Your task to perform on an android device: turn on showing notifications on the lock screen Image 0: 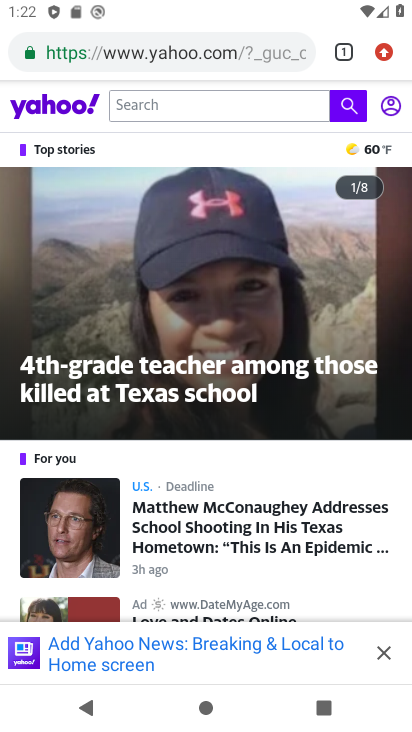
Step 0: press home button
Your task to perform on an android device: turn on showing notifications on the lock screen Image 1: 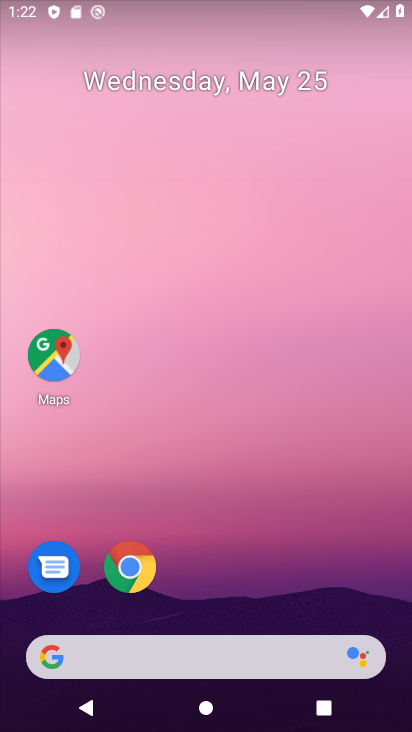
Step 1: drag from (242, 507) to (219, 72)
Your task to perform on an android device: turn on showing notifications on the lock screen Image 2: 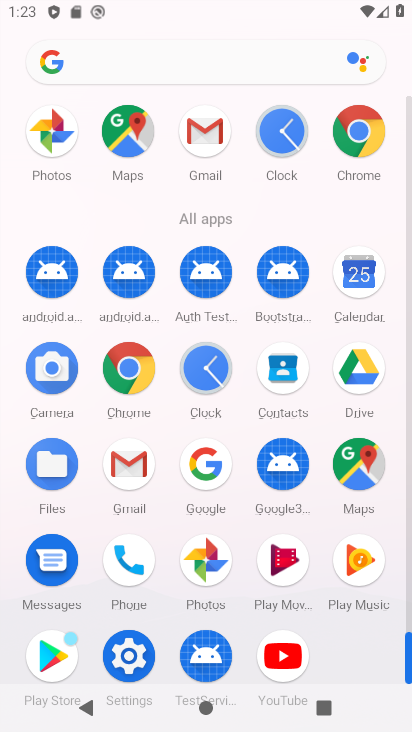
Step 2: drag from (17, 579) to (16, 307)
Your task to perform on an android device: turn on showing notifications on the lock screen Image 3: 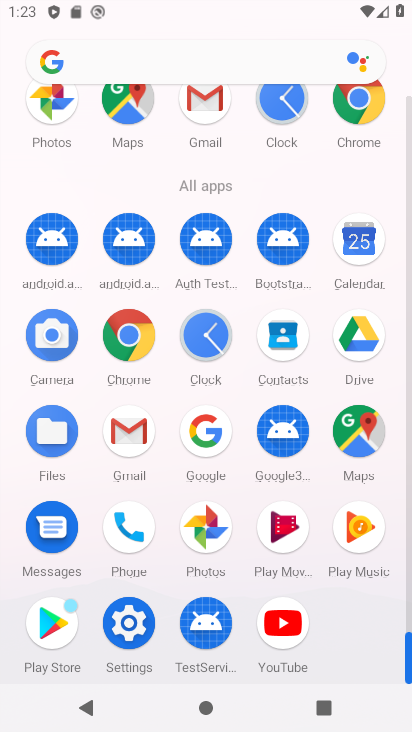
Step 3: click (128, 620)
Your task to perform on an android device: turn on showing notifications on the lock screen Image 4: 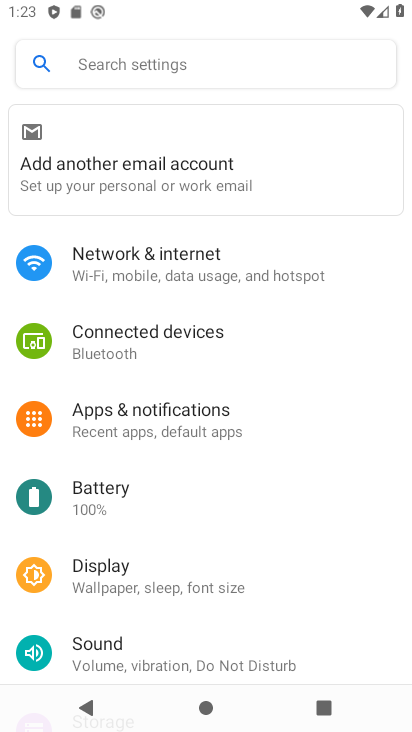
Step 4: click (163, 415)
Your task to perform on an android device: turn on showing notifications on the lock screen Image 5: 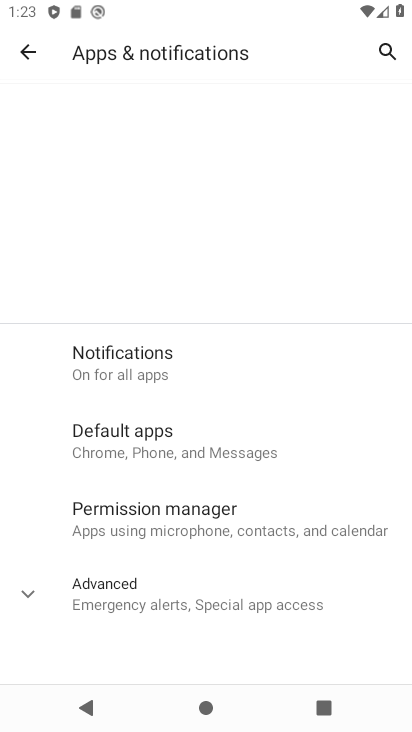
Step 5: click (49, 585)
Your task to perform on an android device: turn on showing notifications on the lock screen Image 6: 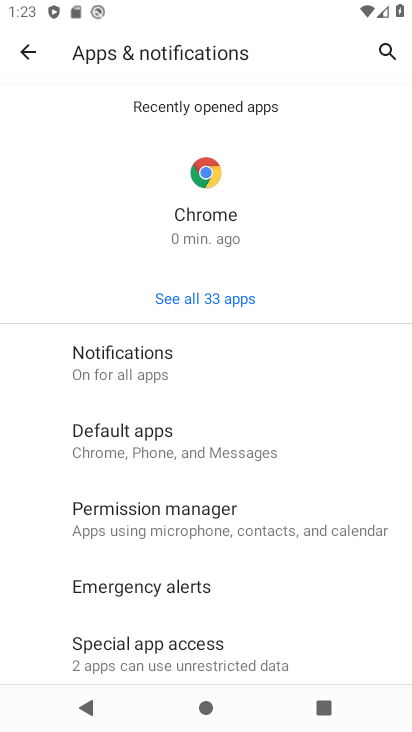
Step 6: click (160, 362)
Your task to perform on an android device: turn on showing notifications on the lock screen Image 7: 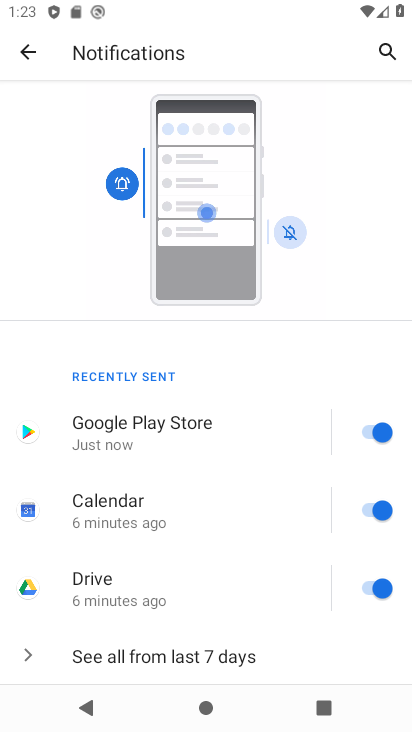
Step 7: drag from (268, 629) to (295, 186)
Your task to perform on an android device: turn on showing notifications on the lock screen Image 8: 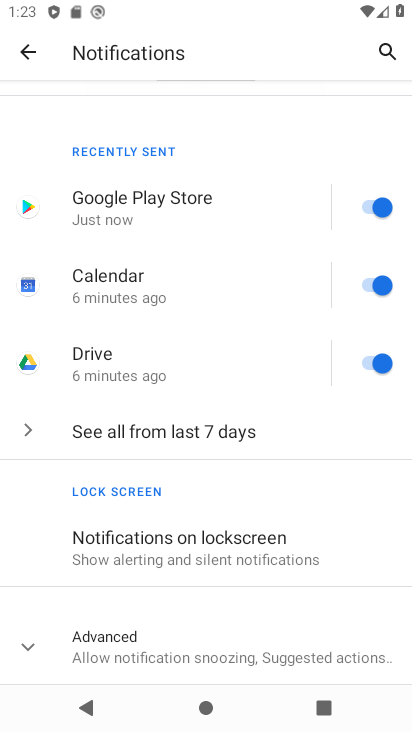
Step 8: click (33, 649)
Your task to perform on an android device: turn on showing notifications on the lock screen Image 9: 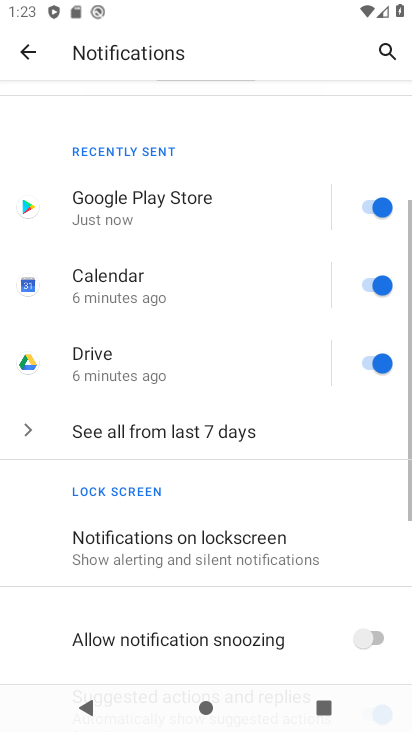
Step 9: task complete